Your task to perform on an android device: clear history in the chrome app Image 0: 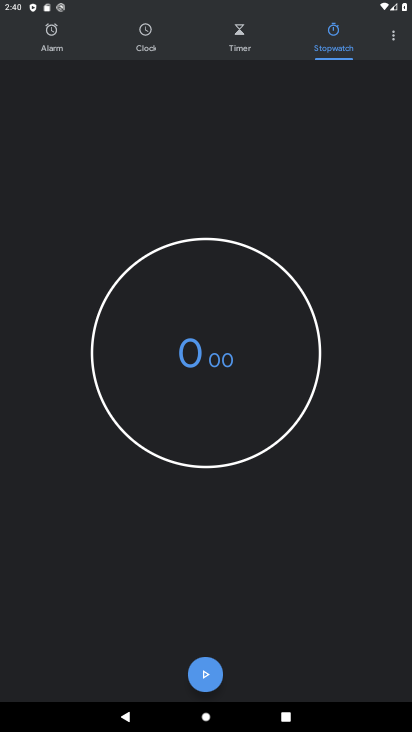
Step 0: press home button
Your task to perform on an android device: clear history in the chrome app Image 1: 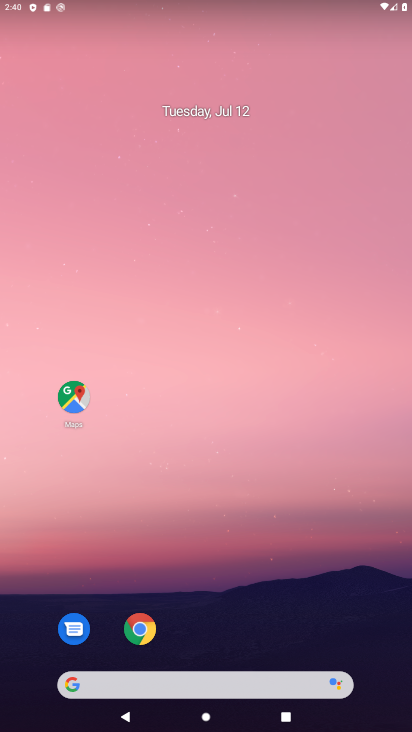
Step 1: click (141, 631)
Your task to perform on an android device: clear history in the chrome app Image 2: 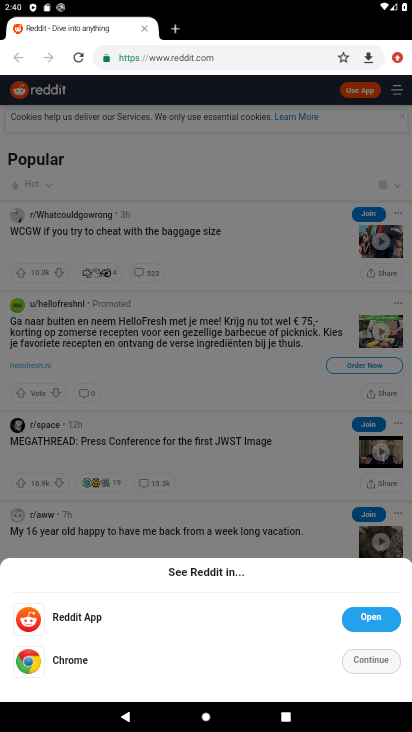
Step 2: click (396, 55)
Your task to perform on an android device: clear history in the chrome app Image 3: 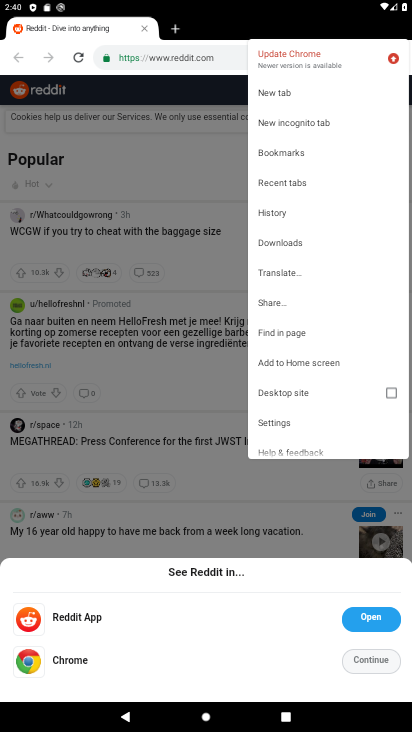
Step 3: click (277, 203)
Your task to perform on an android device: clear history in the chrome app Image 4: 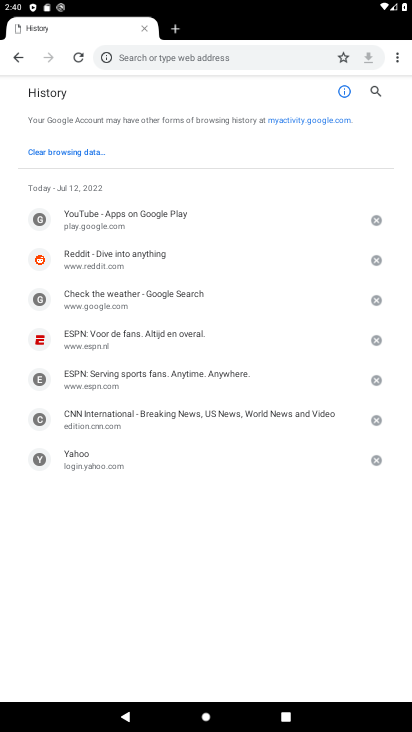
Step 4: click (62, 153)
Your task to perform on an android device: clear history in the chrome app Image 5: 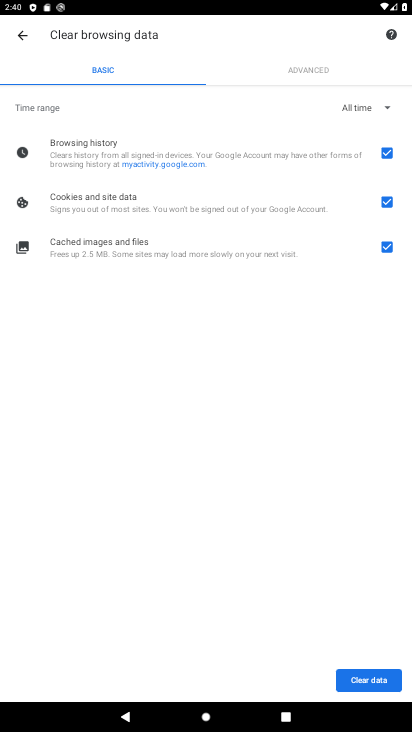
Step 5: click (391, 201)
Your task to perform on an android device: clear history in the chrome app Image 6: 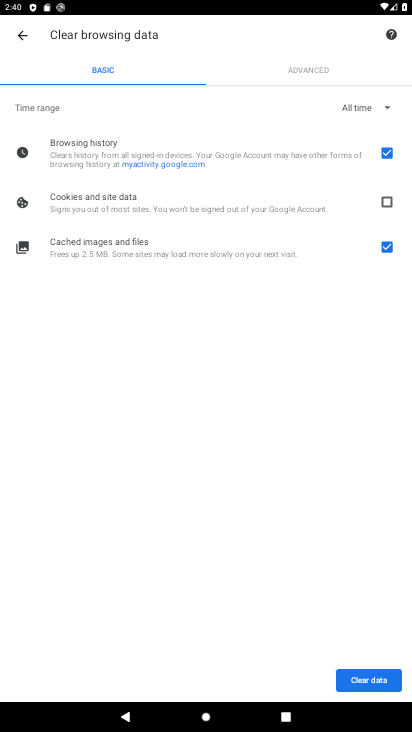
Step 6: click (383, 246)
Your task to perform on an android device: clear history in the chrome app Image 7: 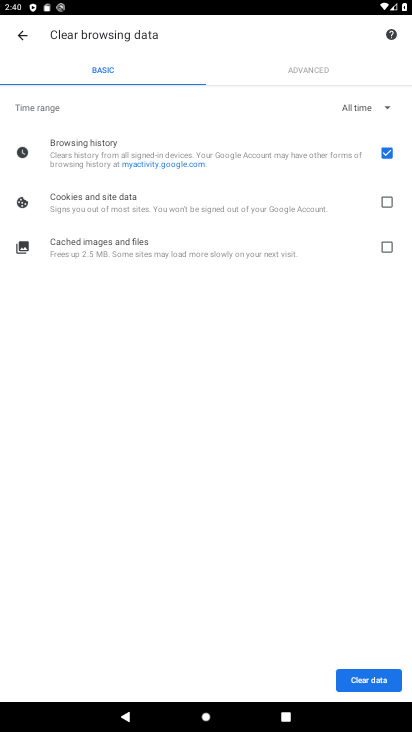
Step 7: click (381, 680)
Your task to perform on an android device: clear history in the chrome app Image 8: 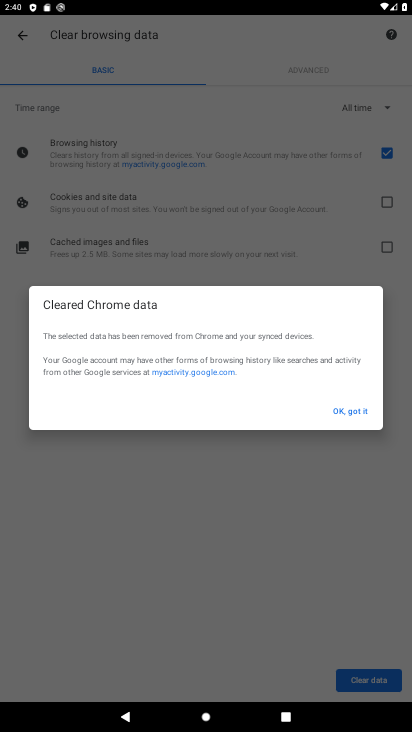
Step 8: click (347, 414)
Your task to perform on an android device: clear history in the chrome app Image 9: 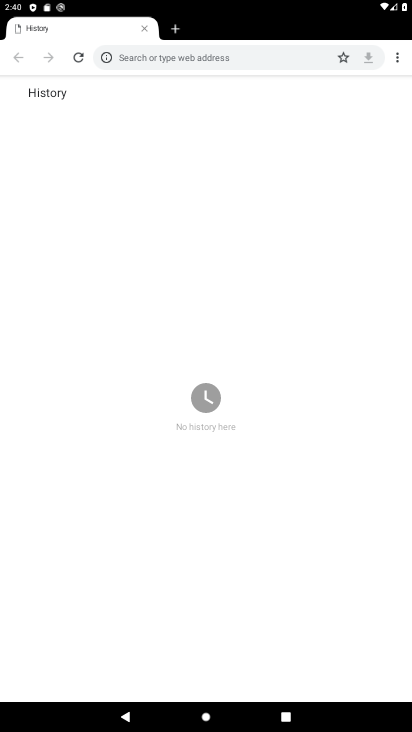
Step 9: task complete